Your task to perform on an android device: uninstall "LiveIn - Share Your Moment" Image 0: 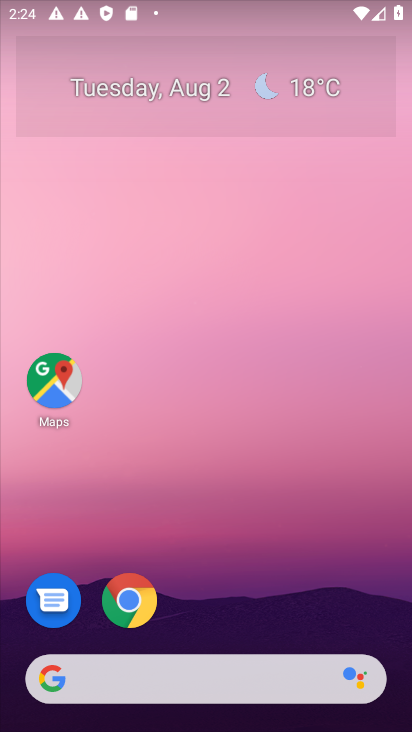
Step 0: drag from (95, 469) to (63, 110)
Your task to perform on an android device: uninstall "LiveIn - Share Your Moment" Image 1: 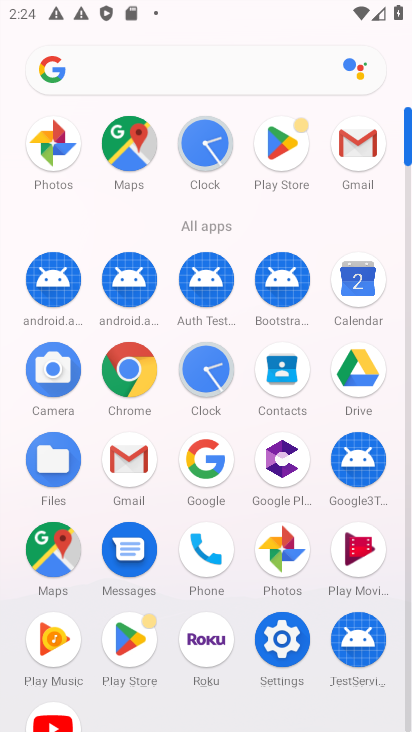
Step 1: click (273, 137)
Your task to perform on an android device: uninstall "LiveIn - Share Your Moment" Image 2: 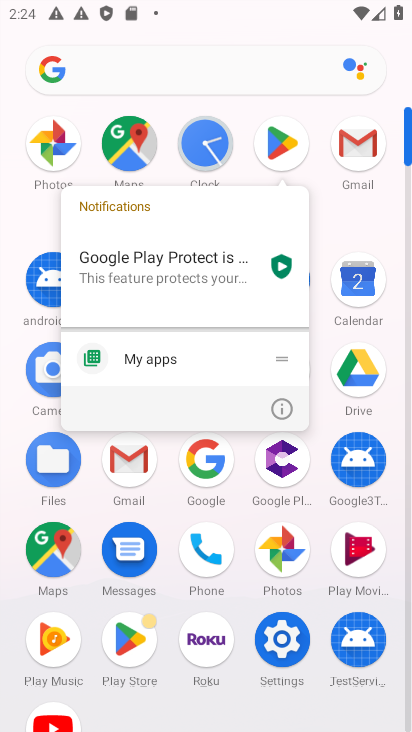
Step 2: click (273, 137)
Your task to perform on an android device: uninstall "LiveIn - Share Your Moment" Image 3: 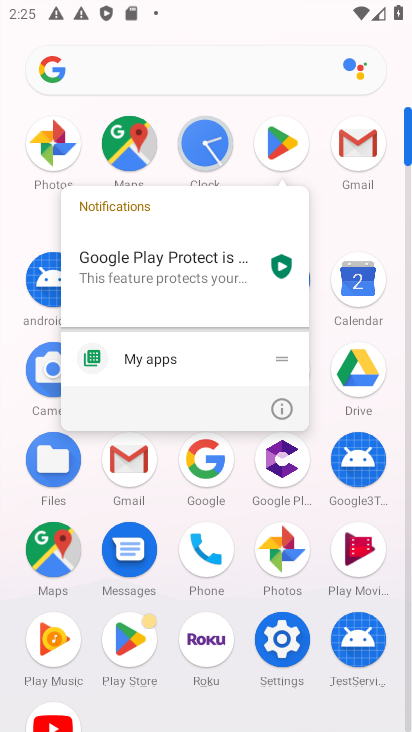
Step 3: click (273, 137)
Your task to perform on an android device: uninstall "LiveIn - Share Your Moment" Image 4: 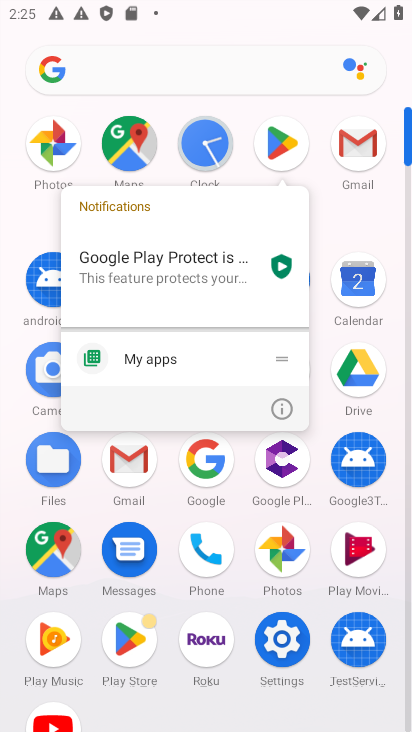
Step 4: click (273, 137)
Your task to perform on an android device: uninstall "LiveIn - Share Your Moment" Image 5: 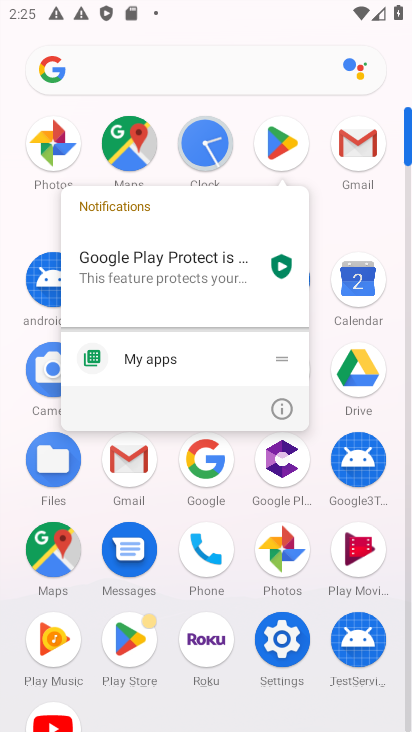
Step 5: click (288, 149)
Your task to perform on an android device: uninstall "LiveIn - Share Your Moment" Image 6: 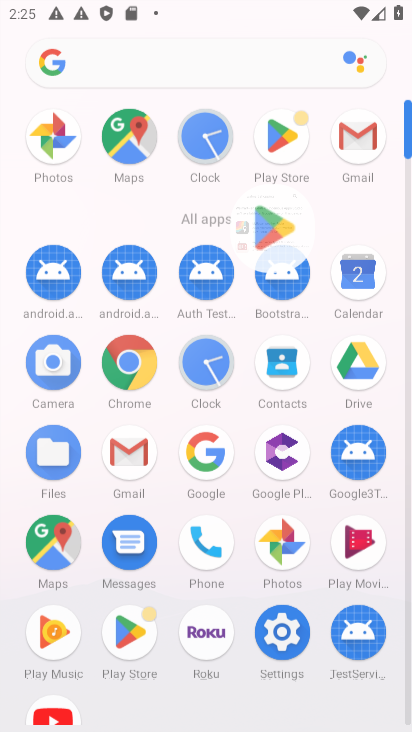
Step 6: click (280, 157)
Your task to perform on an android device: uninstall "LiveIn - Share Your Moment" Image 7: 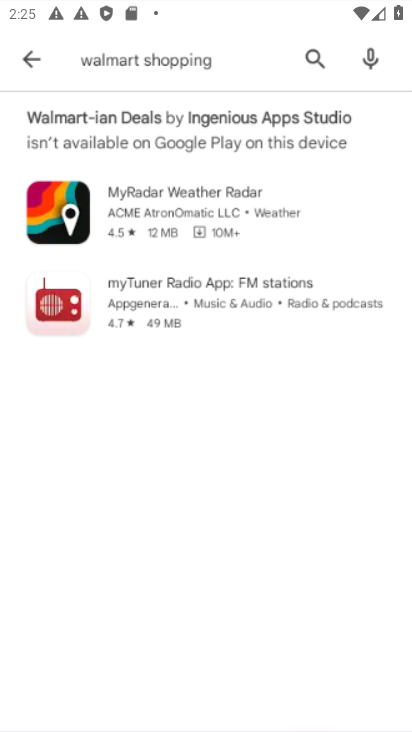
Step 7: click (280, 157)
Your task to perform on an android device: uninstall "LiveIn - Share Your Moment" Image 8: 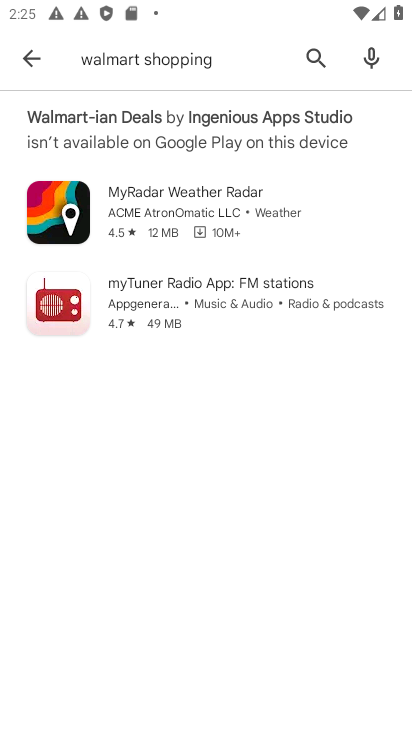
Step 8: click (236, 155)
Your task to perform on an android device: uninstall "LiveIn - Share Your Moment" Image 9: 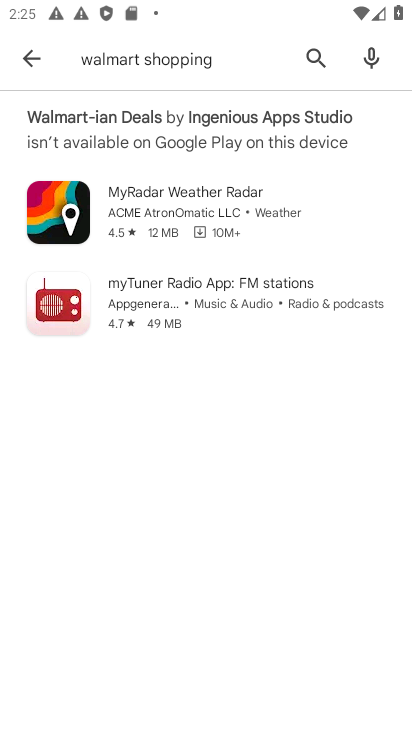
Step 9: click (316, 55)
Your task to perform on an android device: uninstall "LiveIn - Share Your Moment" Image 10: 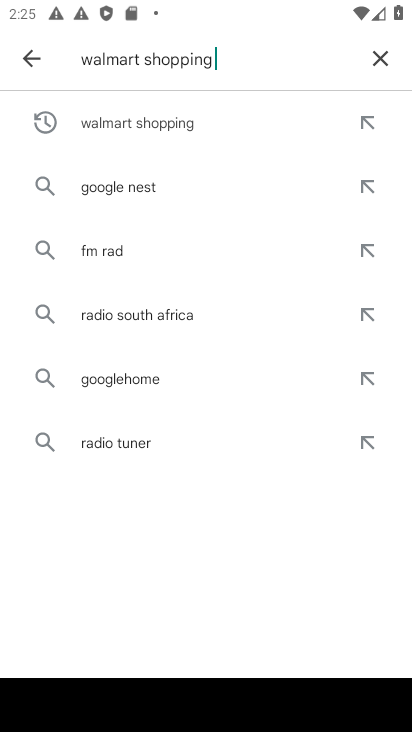
Step 10: click (386, 52)
Your task to perform on an android device: uninstall "LiveIn - Share Your Moment" Image 11: 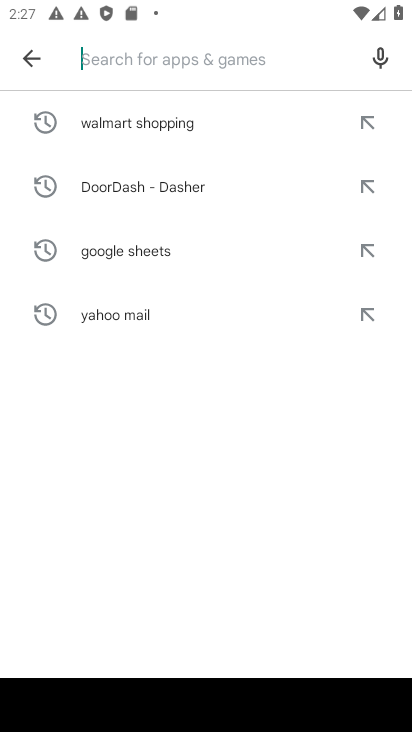
Step 11: click (256, 62)
Your task to perform on an android device: uninstall "LiveIn - Share Your Moment" Image 12: 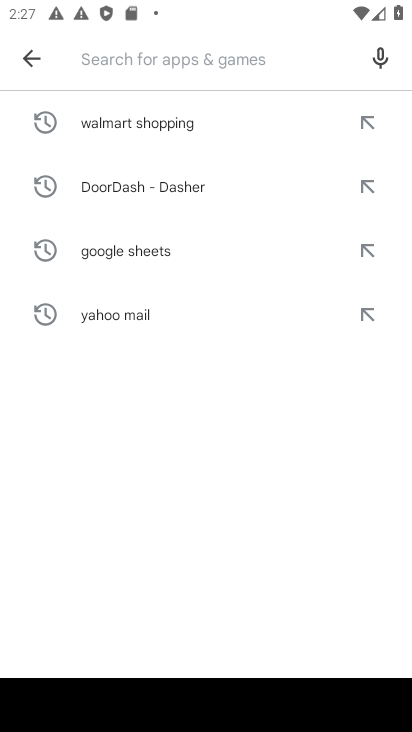
Step 12: type "LiveIn - Share Your Moment""
Your task to perform on an android device: uninstall "LiveIn - Share Your Moment" Image 13: 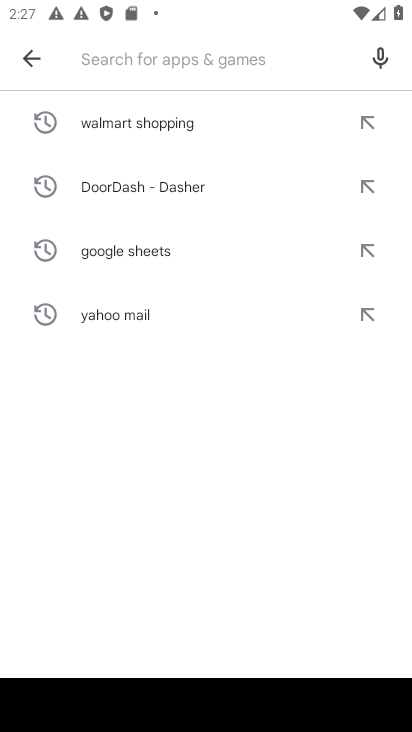
Step 13: type ""
Your task to perform on an android device: uninstall "LiveIn - Share Your Moment" Image 14: 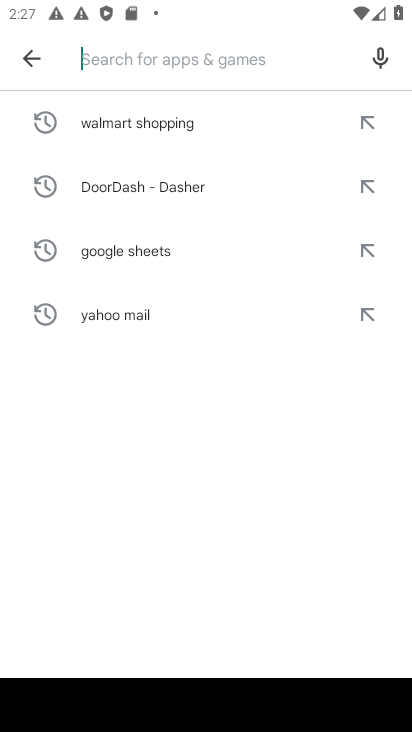
Step 14: type "livein"
Your task to perform on an android device: uninstall "LiveIn - Share Your Moment" Image 15: 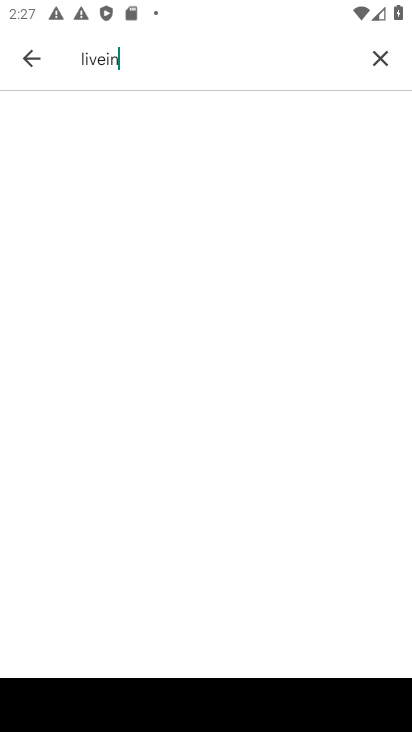
Step 15: press enter
Your task to perform on an android device: uninstall "LiveIn - Share Your Moment" Image 16: 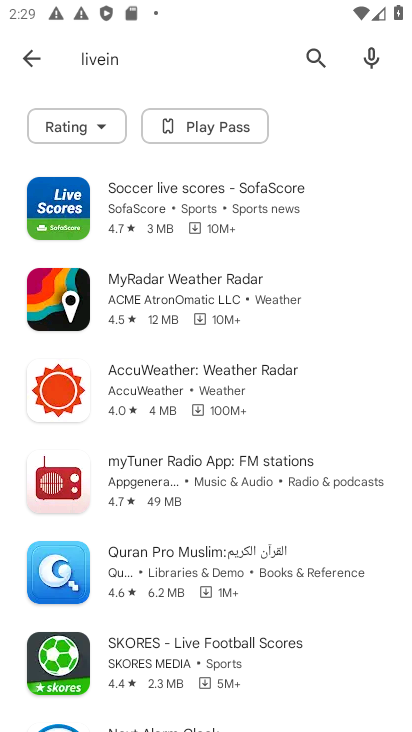
Step 16: task complete